Your task to perform on an android device: change keyboard looks Image 0: 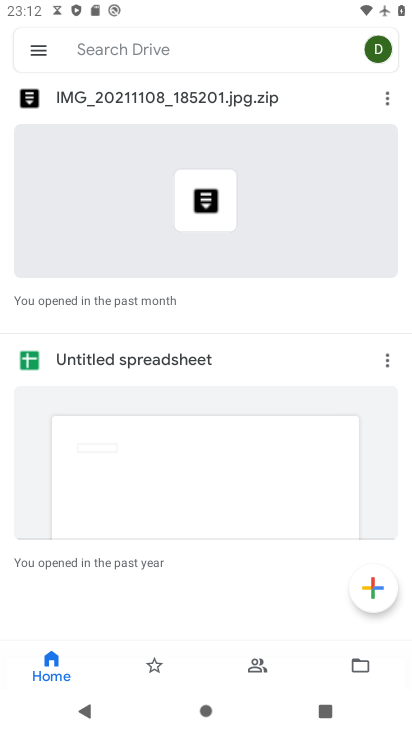
Step 0: press back button
Your task to perform on an android device: change keyboard looks Image 1: 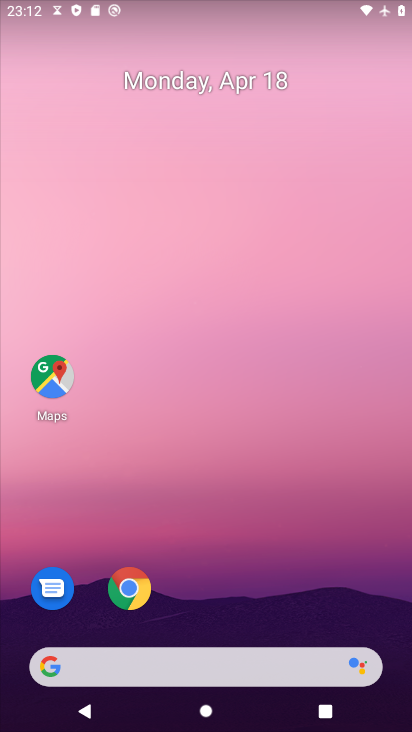
Step 1: drag from (298, 550) to (327, 58)
Your task to perform on an android device: change keyboard looks Image 2: 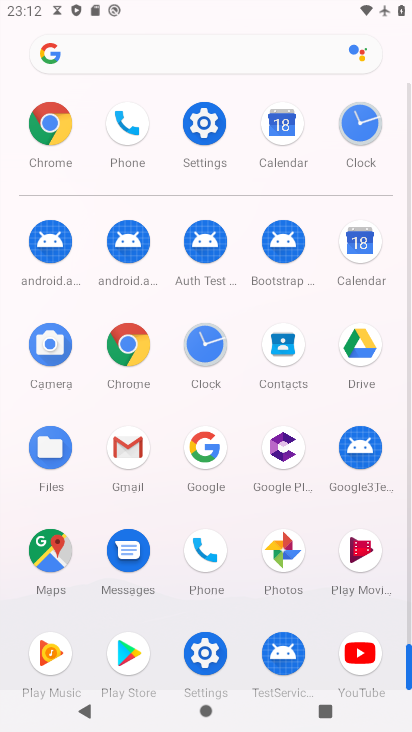
Step 2: drag from (9, 470) to (5, 243)
Your task to perform on an android device: change keyboard looks Image 3: 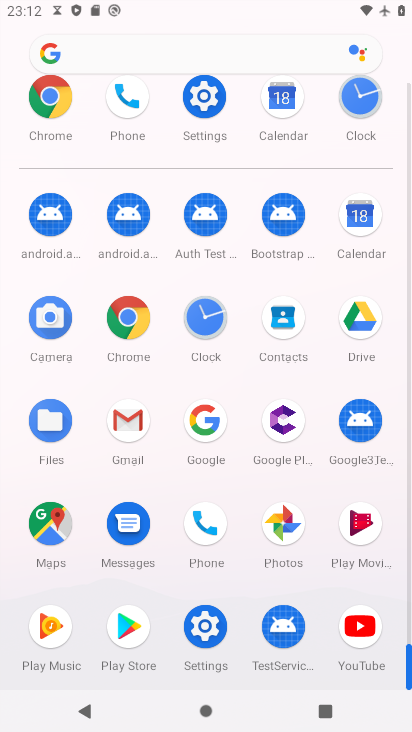
Step 3: click (206, 93)
Your task to perform on an android device: change keyboard looks Image 4: 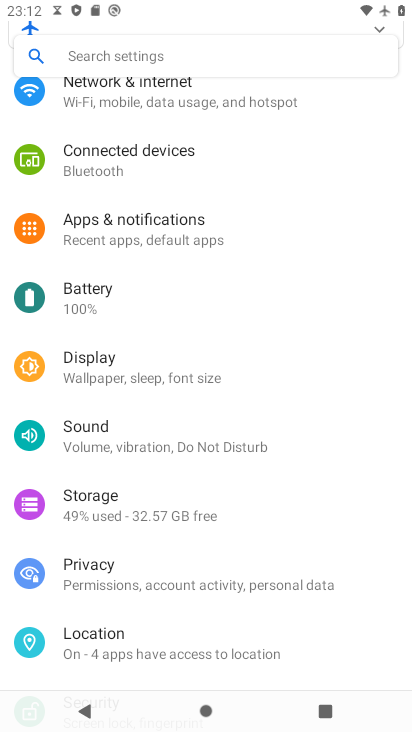
Step 4: drag from (296, 500) to (306, 126)
Your task to perform on an android device: change keyboard looks Image 5: 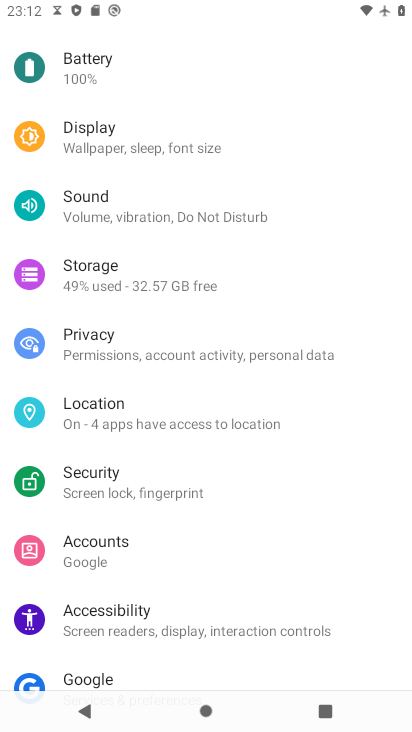
Step 5: drag from (253, 484) to (267, 76)
Your task to perform on an android device: change keyboard looks Image 6: 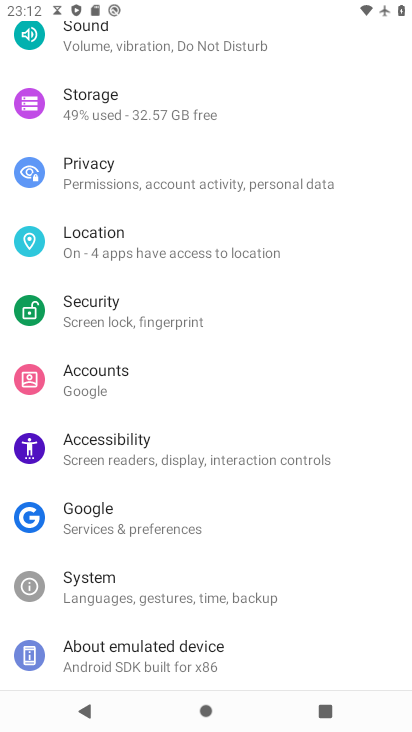
Step 6: drag from (248, 379) to (270, 66)
Your task to perform on an android device: change keyboard looks Image 7: 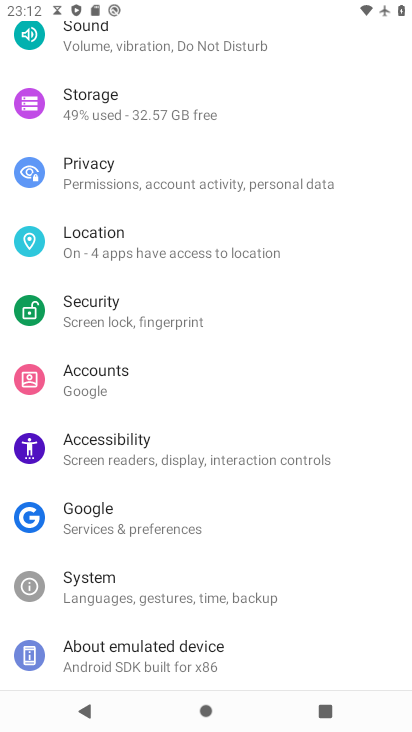
Step 7: click (162, 583)
Your task to perform on an android device: change keyboard looks Image 8: 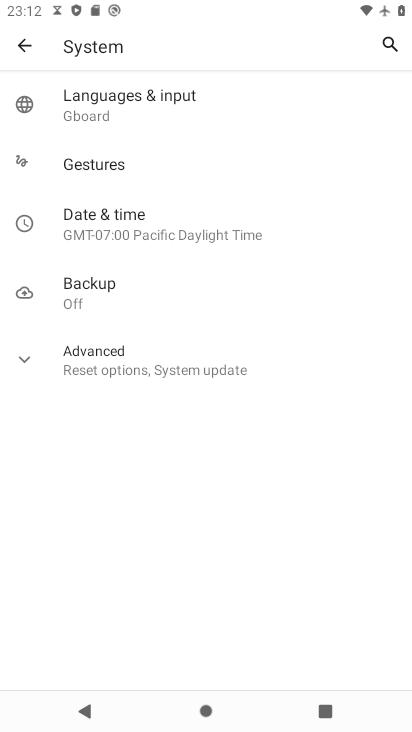
Step 8: click (195, 98)
Your task to perform on an android device: change keyboard looks Image 9: 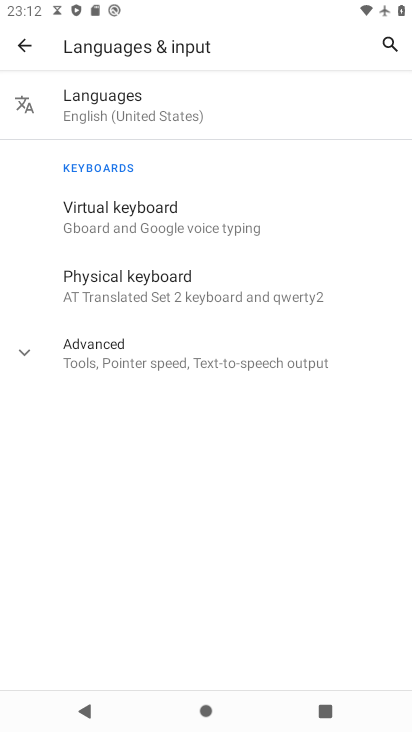
Step 9: click (188, 219)
Your task to perform on an android device: change keyboard looks Image 10: 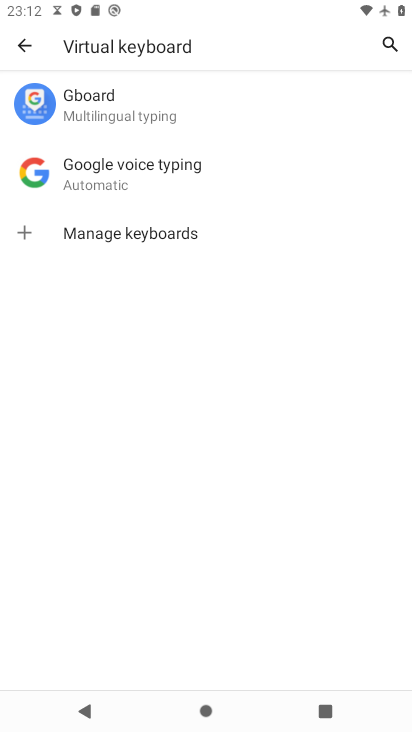
Step 10: click (187, 109)
Your task to perform on an android device: change keyboard looks Image 11: 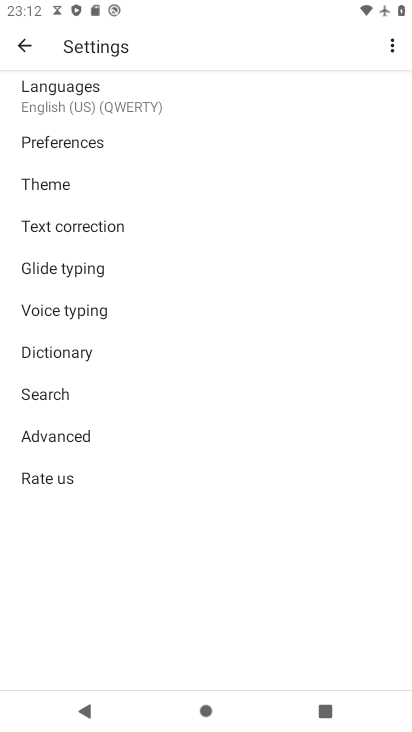
Step 11: click (85, 186)
Your task to perform on an android device: change keyboard looks Image 12: 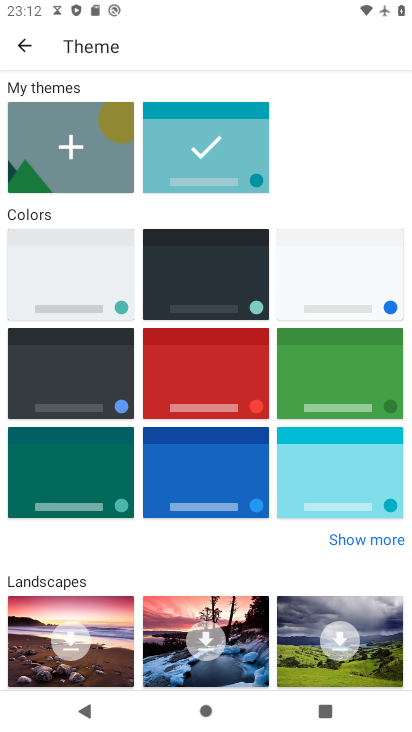
Step 12: click (216, 498)
Your task to perform on an android device: change keyboard looks Image 13: 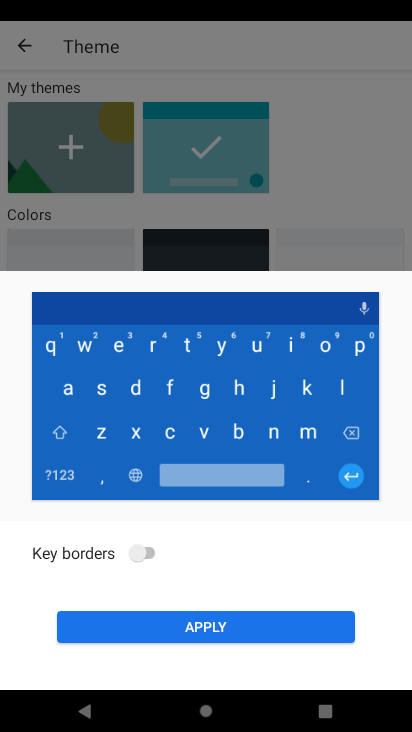
Step 13: click (202, 626)
Your task to perform on an android device: change keyboard looks Image 14: 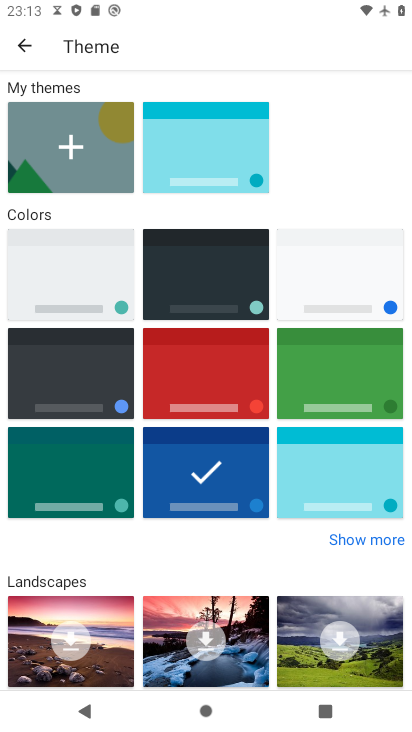
Step 14: task complete